Your task to perform on an android device: change the clock display to analog Image 0: 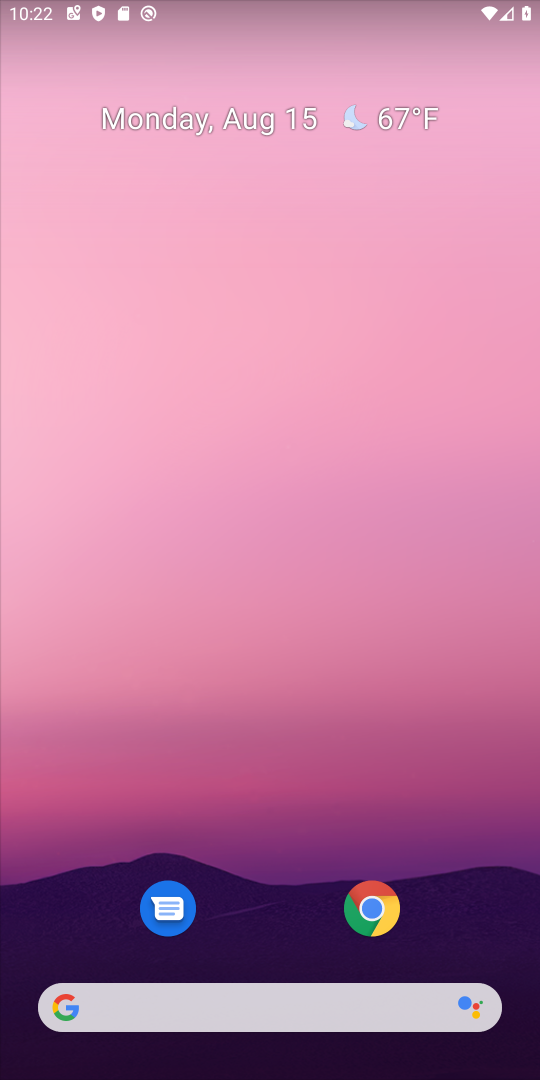
Step 0: drag from (133, 474) to (113, 315)
Your task to perform on an android device: change the clock display to analog Image 1: 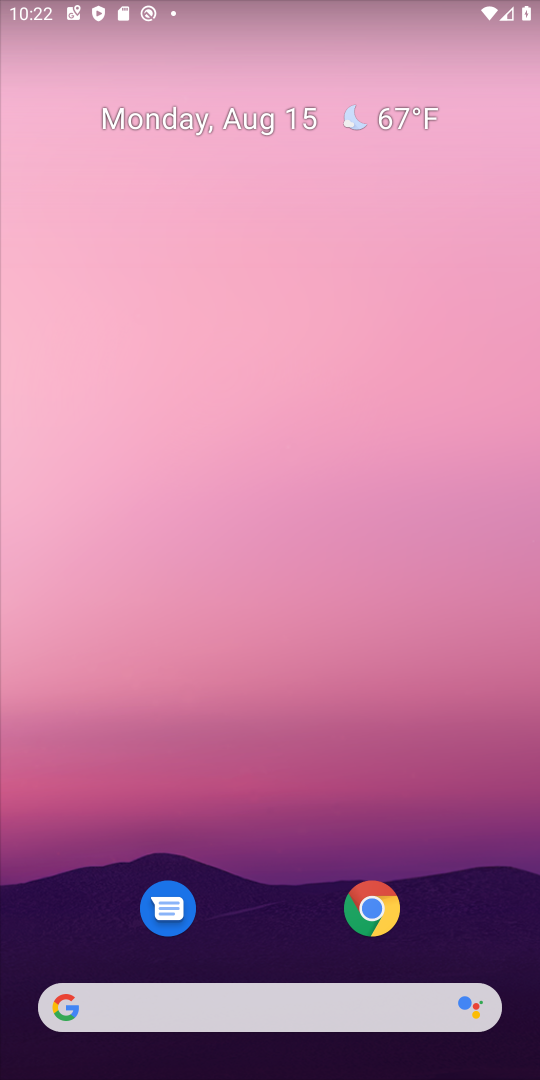
Step 1: drag from (286, 943) to (346, 201)
Your task to perform on an android device: change the clock display to analog Image 2: 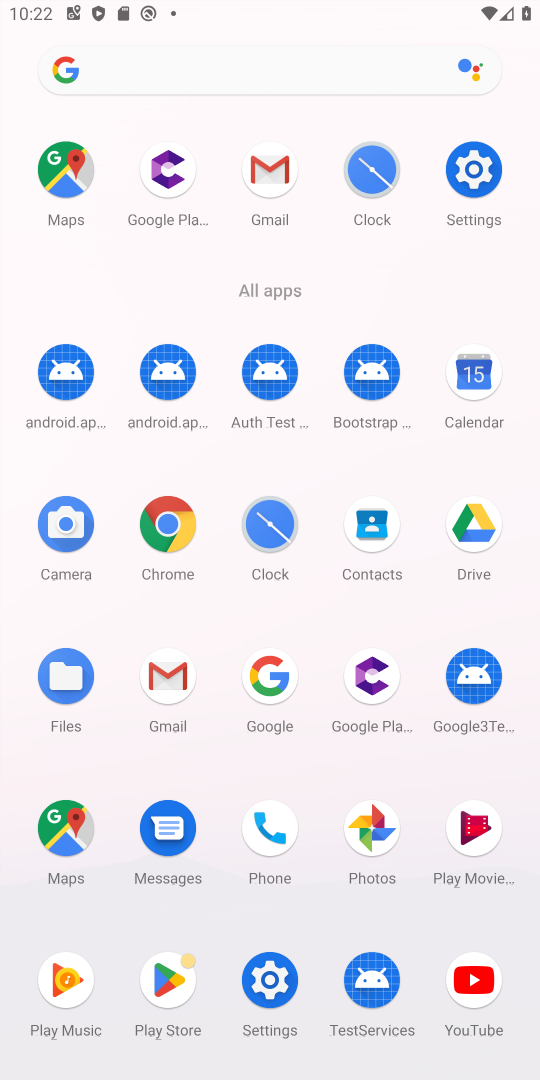
Step 2: click (370, 187)
Your task to perform on an android device: change the clock display to analog Image 3: 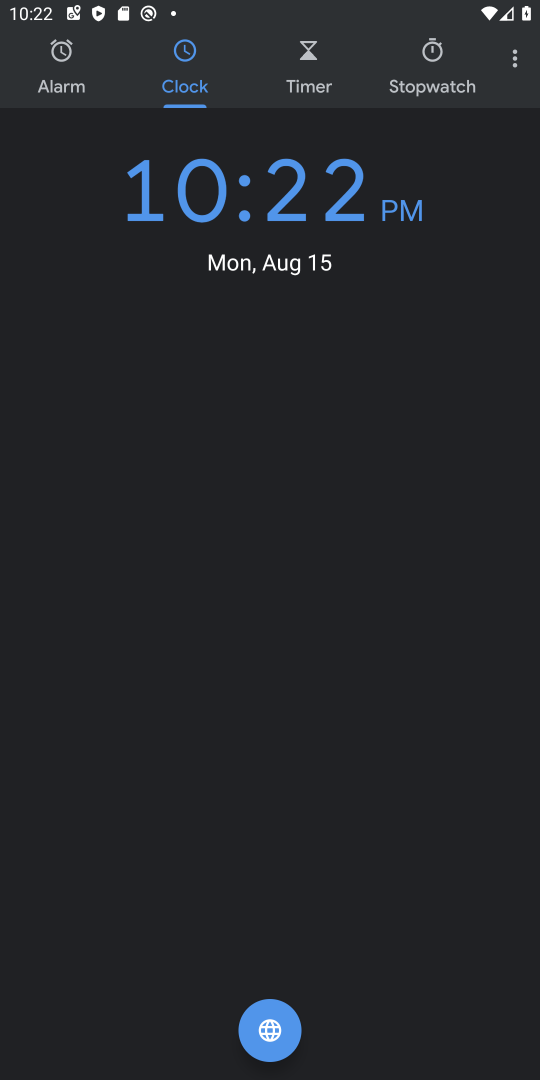
Step 3: click (526, 57)
Your task to perform on an android device: change the clock display to analog Image 4: 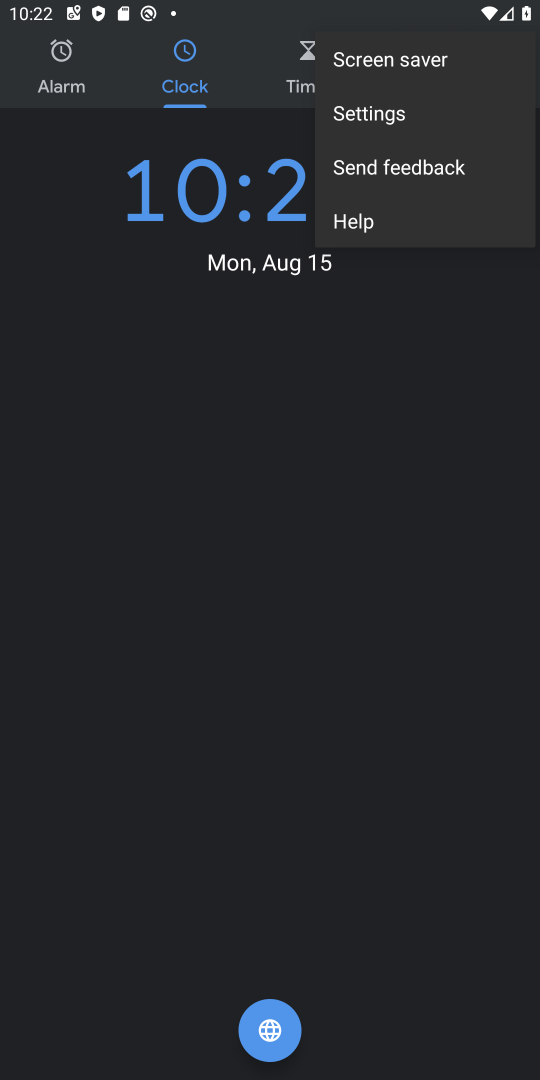
Step 4: click (428, 110)
Your task to perform on an android device: change the clock display to analog Image 5: 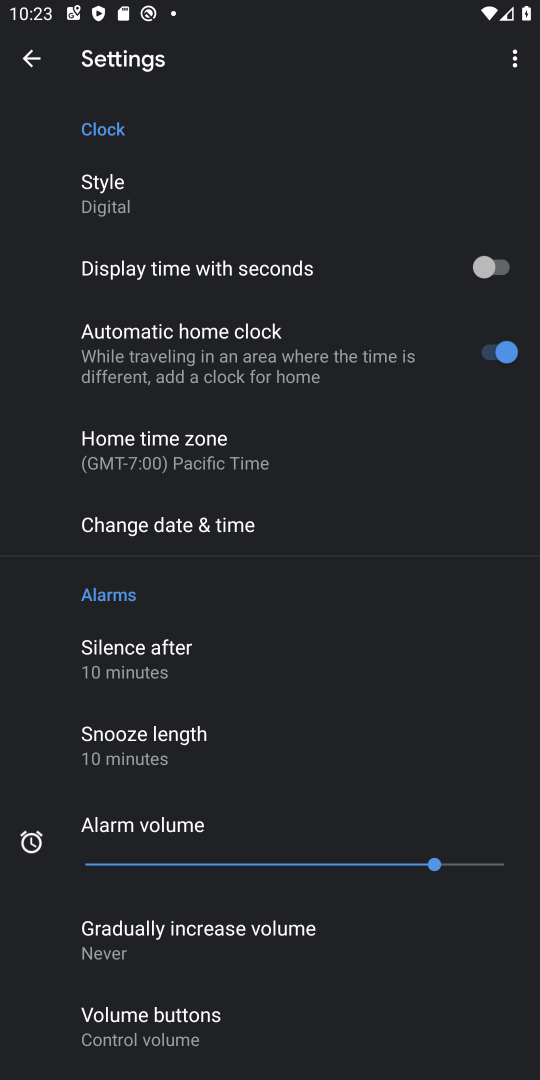
Step 5: click (141, 204)
Your task to perform on an android device: change the clock display to analog Image 6: 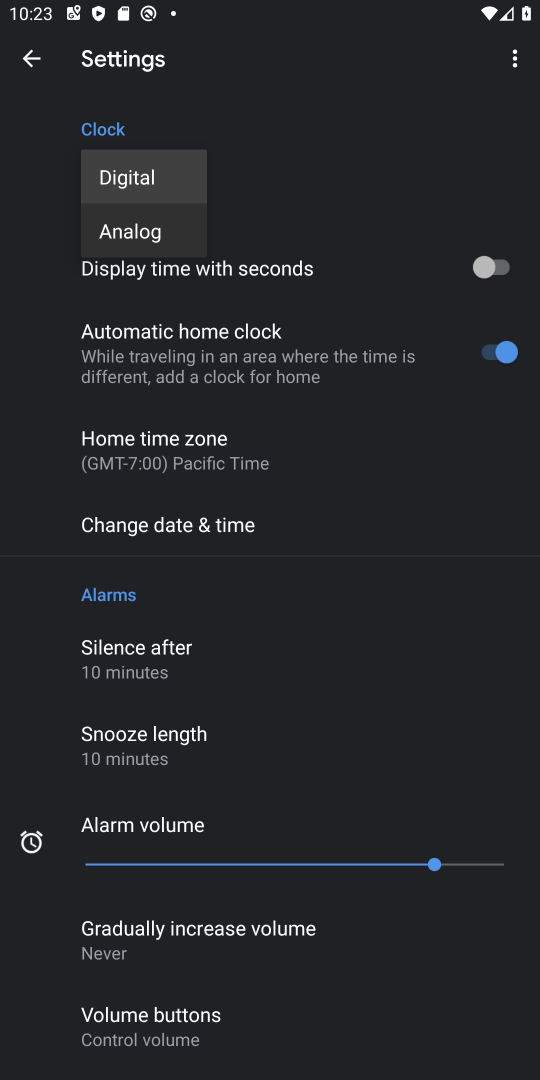
Step 6: click (162, 240)
Your task to perform on an android device: change the clock display to analog Image 7: 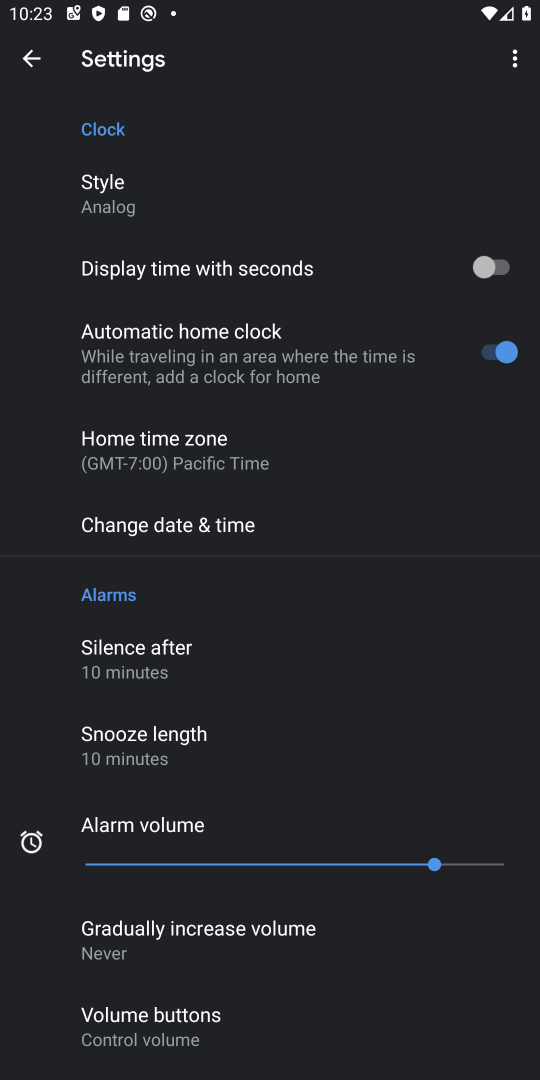
Step 7: task complete